Your task to perform on an android device: turn notification dots off Image 0: 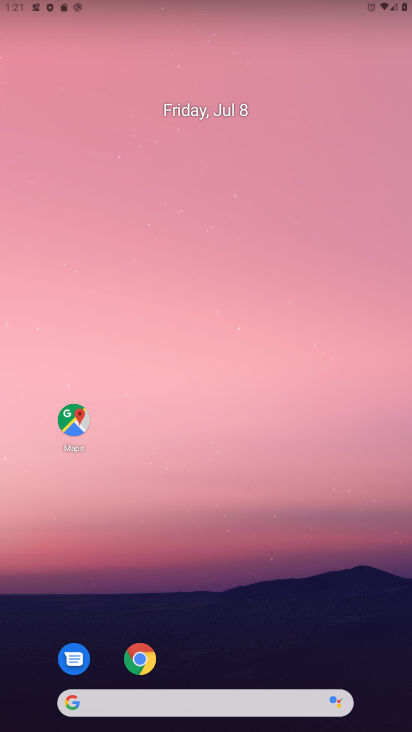
Step 0: drag from (174, 593) to (98, 178)
Your task to perform on an android device: turn notification dots off Image 1: 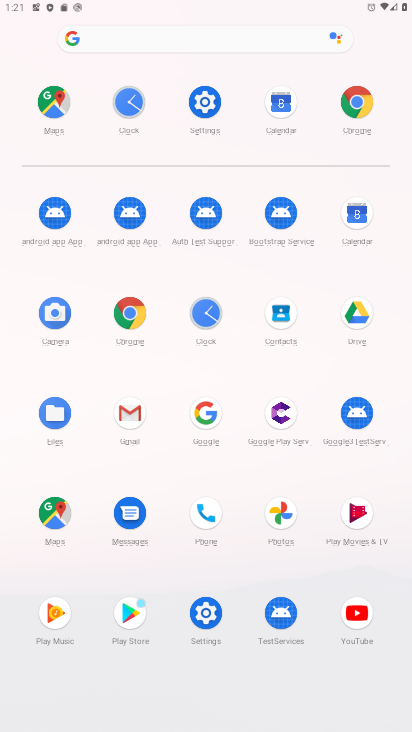
Step 1: click (204, 100)
Your task to perform on an android device: turn notification dots off Image 2: 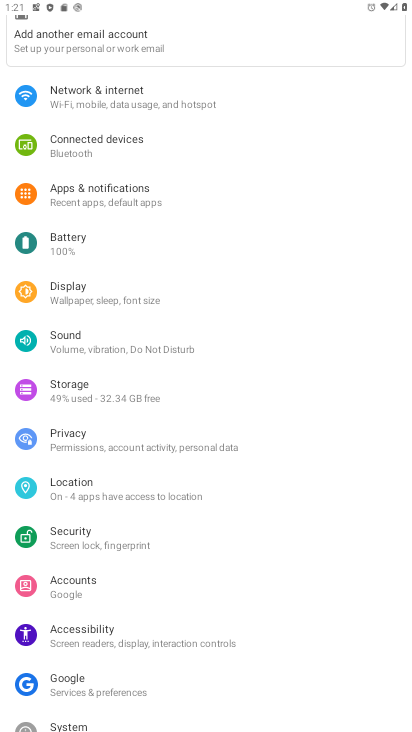
Step 2: click (111, 184)
Your task to perform on an android device: turn notification dots off Image 3: 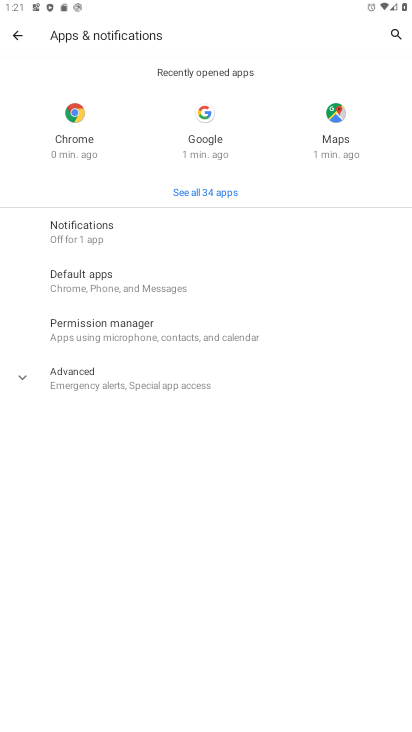
Step 3: click (91, 224)
Your task to perform on an android device: turn notification dots off Image 4: 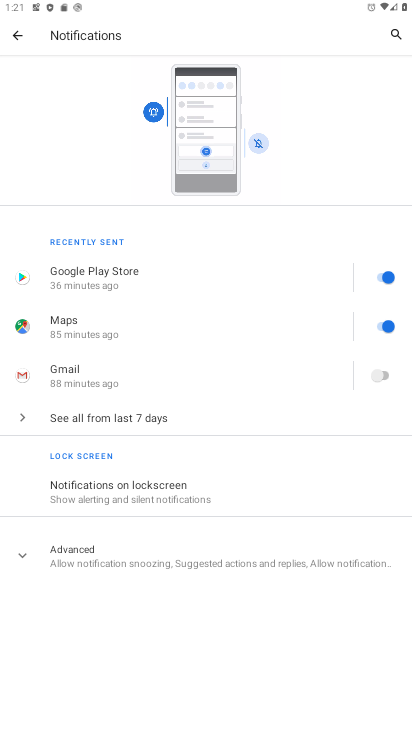
Step 4: click (50, 549)
Your task to perform on an android device: turn notification dots off Image 5: 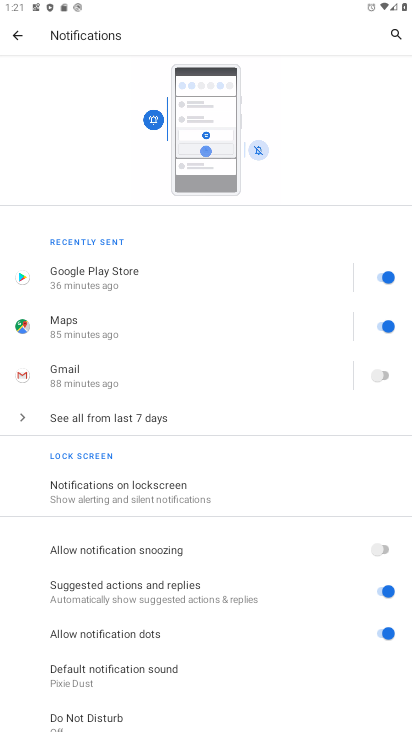
Step 5: click (383, 632)
Your task to perform on an android device: turn notification dots off Image 6: 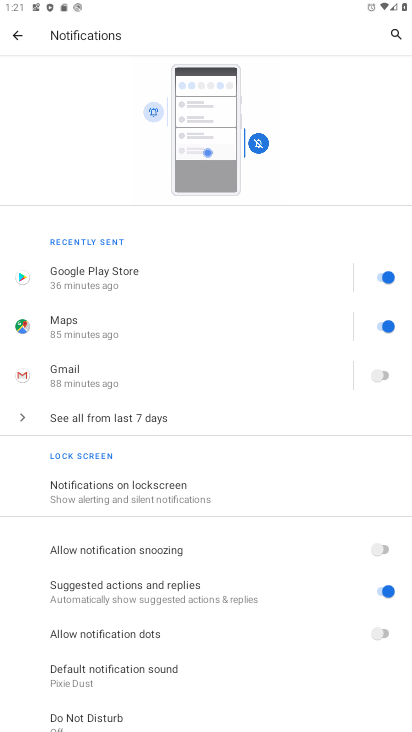
Step 6: task complete